Your task to perform on an android device: manage bookmarks in the chrome app Image 0: 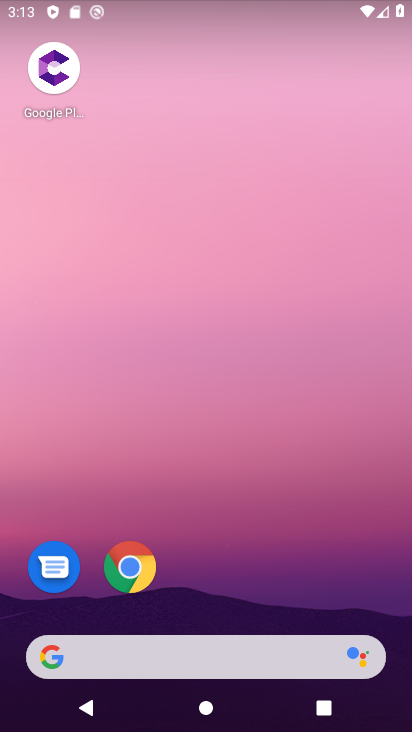
Step 0: click (132, 571)
Your task to perform on an android device: manage bookmarks in the chrome app Image 1: 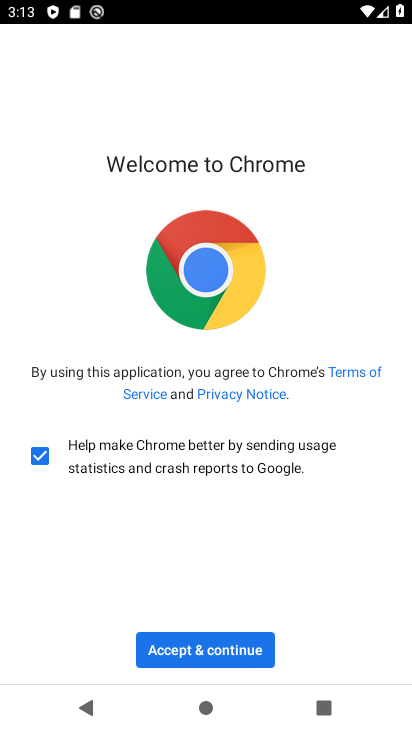
Step 1: click (180, 644)
Your task to perform on an android device: manage bookmarks in the chrome app Image 2: 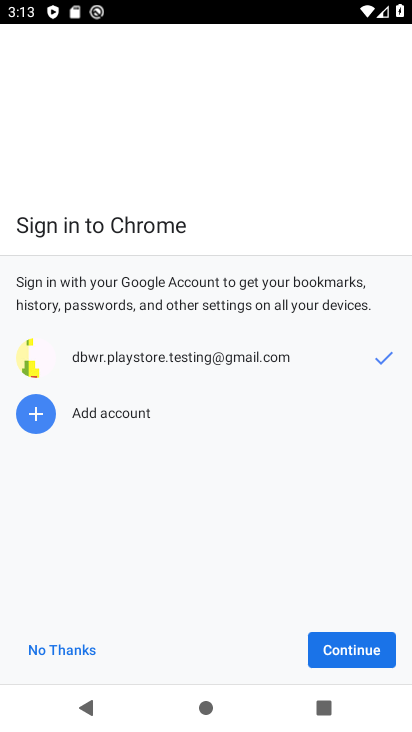
Step 2: click (344, 652)
Your task to perform on an android device: manage bookmarks in the chrome app Image 3: 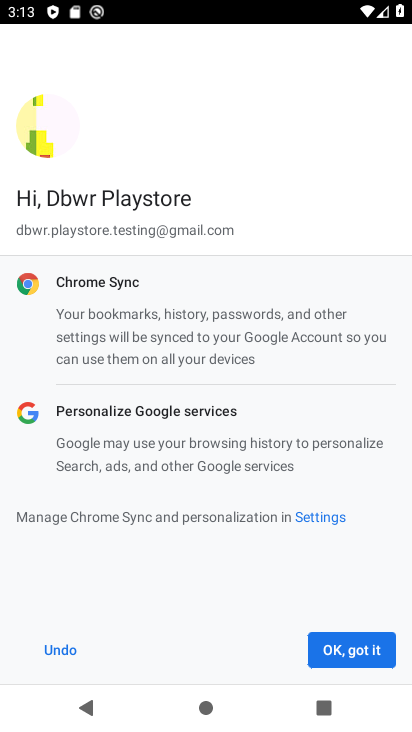
Step 3: click (344, 652)
Your task to perform on an android device: manage bookmarks in the chrome app Image 4: 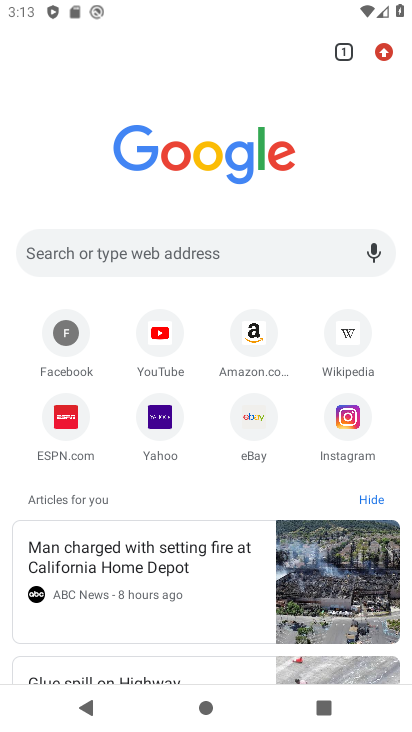
Step 4: click (378, 63)
Your task to perform on an android device: manage bookmarks in the chrome app Image 5: 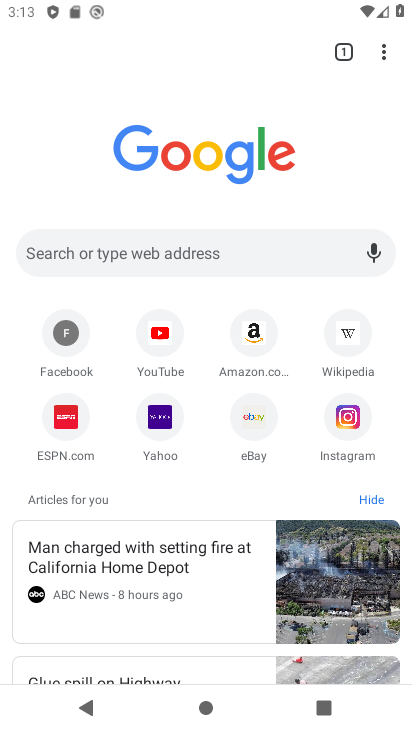
Step 5: click (383, 59)
Your task to perform on an android device: manage bookmarks in the chrome app Image 6: 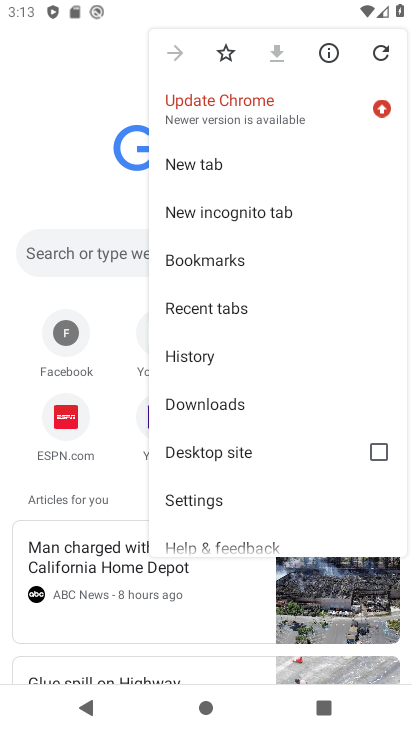
Step 6: click (174, 508)
Your task to perform on an android device: manage bookmarks in the chrome app Image 7: 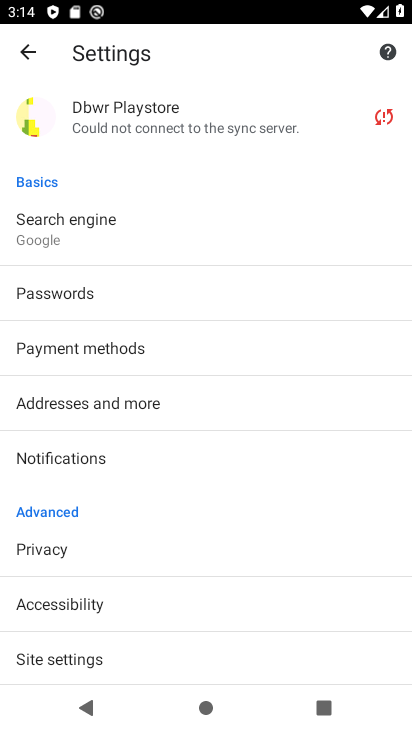
Step 7: drag from (79, 622) to (145, 103)
Your task to perform on an android device: manage bookmarks in the chrome app Image 8: 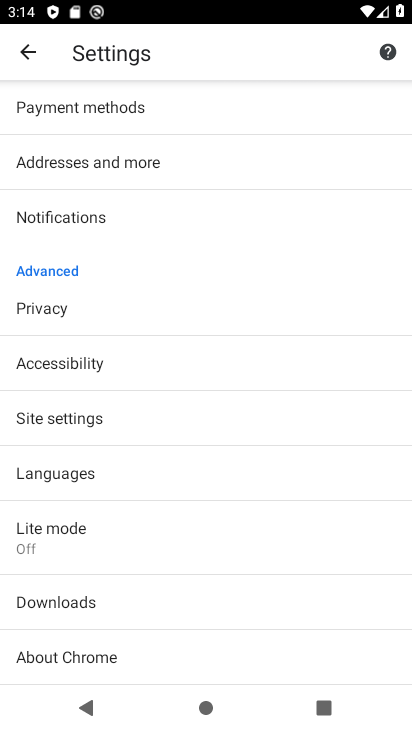
Step 8: drag from (137, 234) to (115, 576)
Your task to perform on an android device: manage bookmarks in the chrome app Image 9: 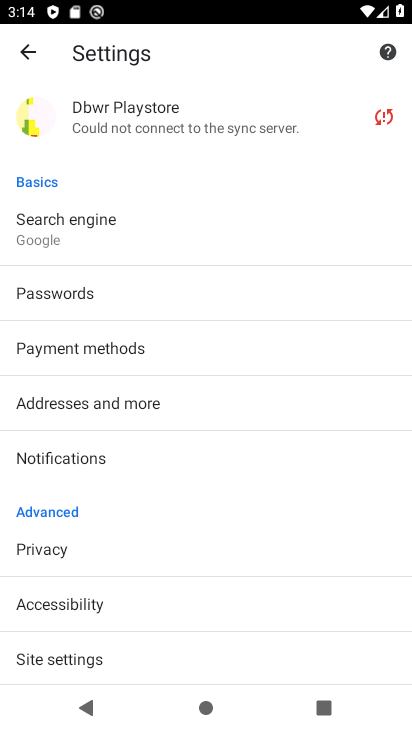
Step 9: drag from (119, 542) to (153, 231)
Your task to perform on an android device: manage bookmarks in the chrome app Image 10: 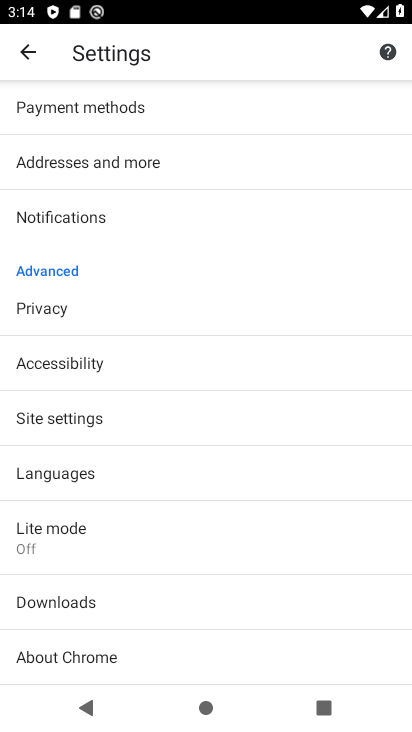
Step 10: click (27, 55)
Your task to perform on an android device: manage bookmarks in the chrome app Image 11: 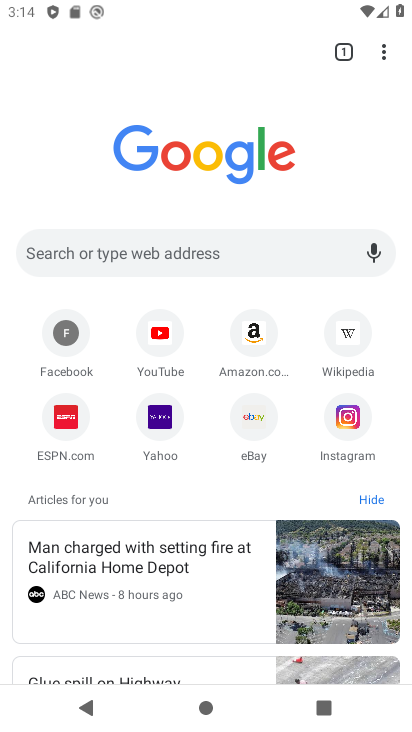
Step 11: click (395, 56)
Your task to perform on an android device: manage bookmarks in the chrome app Image 12: 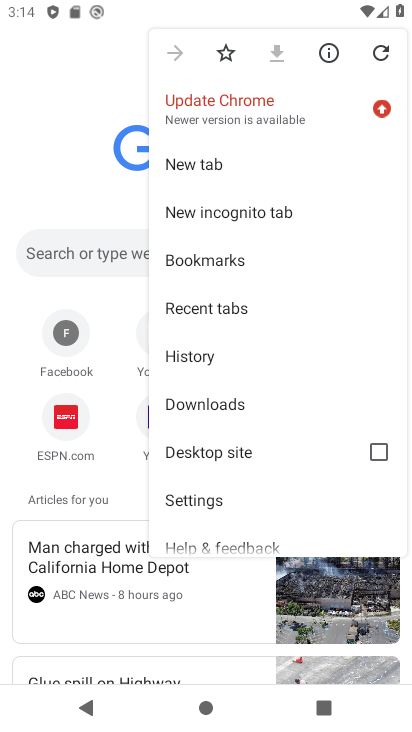
Step 12: click (219, 264)
Your task to perform on an android device: manage bookmarks in the chrome app Image 13: 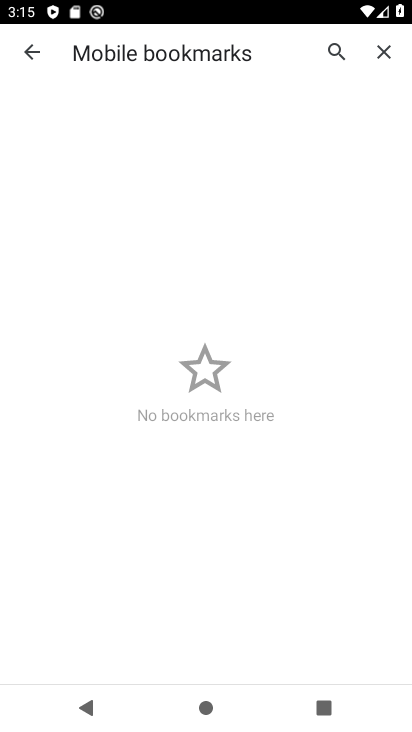
Step 13: task complete